Your task to perform on an android device: What's on the menu at Burger King? Image 0: 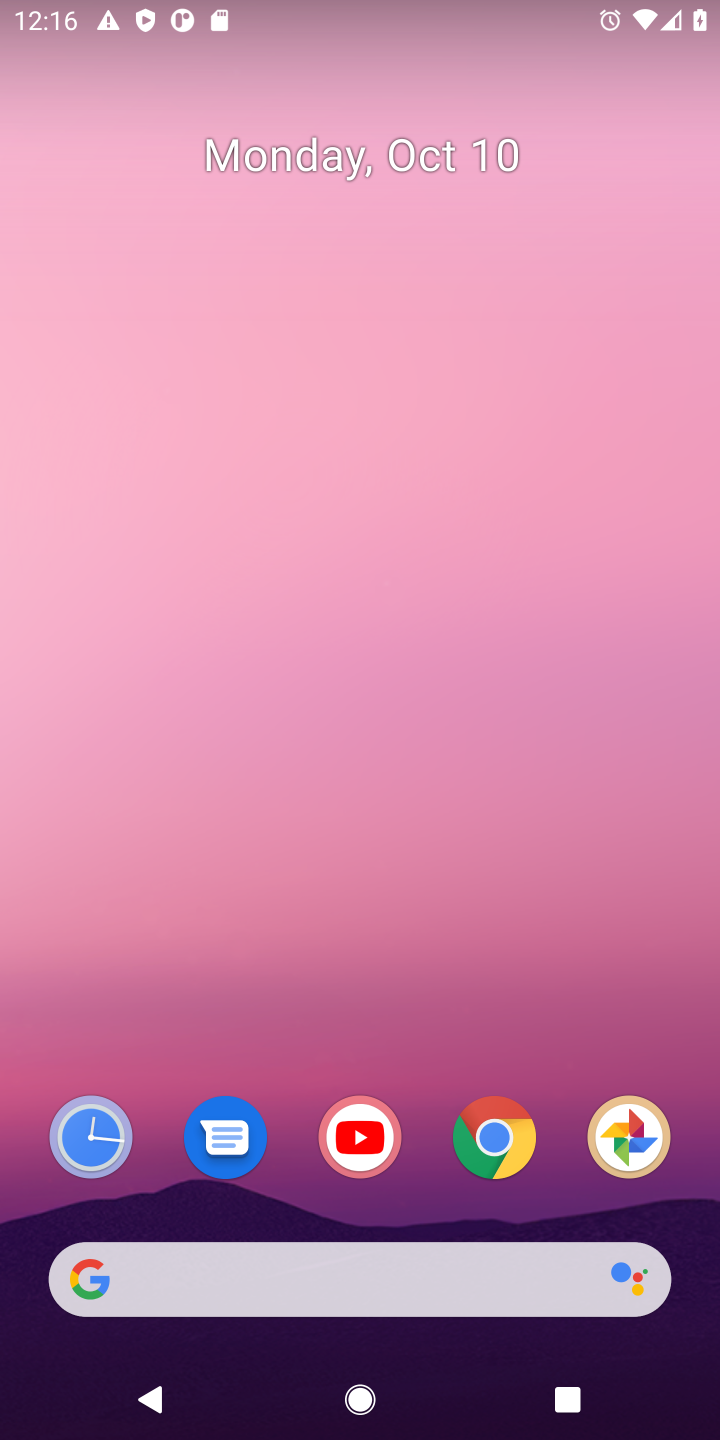
Step 0: drag from (418, 979) to (498, 39)
Your task to perform on an android device: What's on the menu at Burger King? Image 1: 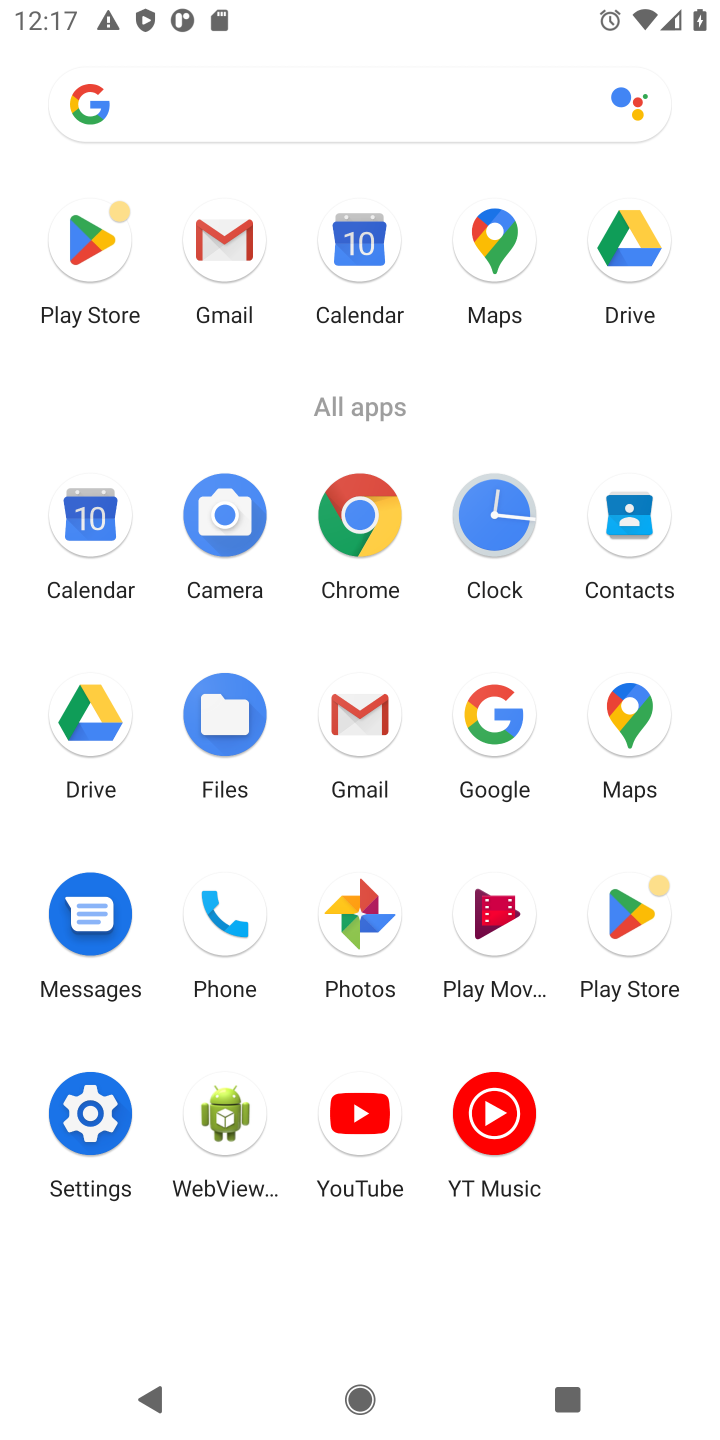
Step 1: click (368, 516)
Your task to perform on an android device: What's on the menu at Burger King? Image 2: 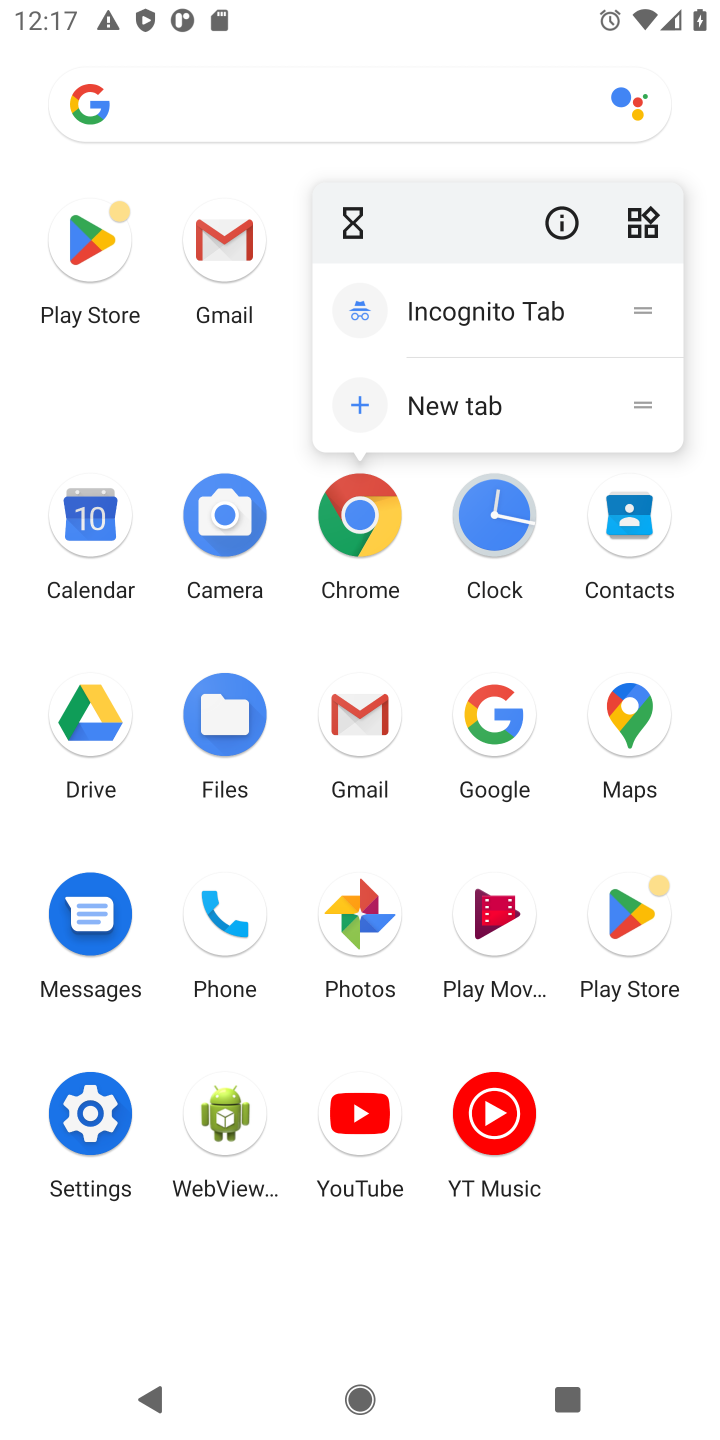
Step 2: click (355, 514)
Your task to perform on an android device: What's on the menu at Burger King? Image 3: 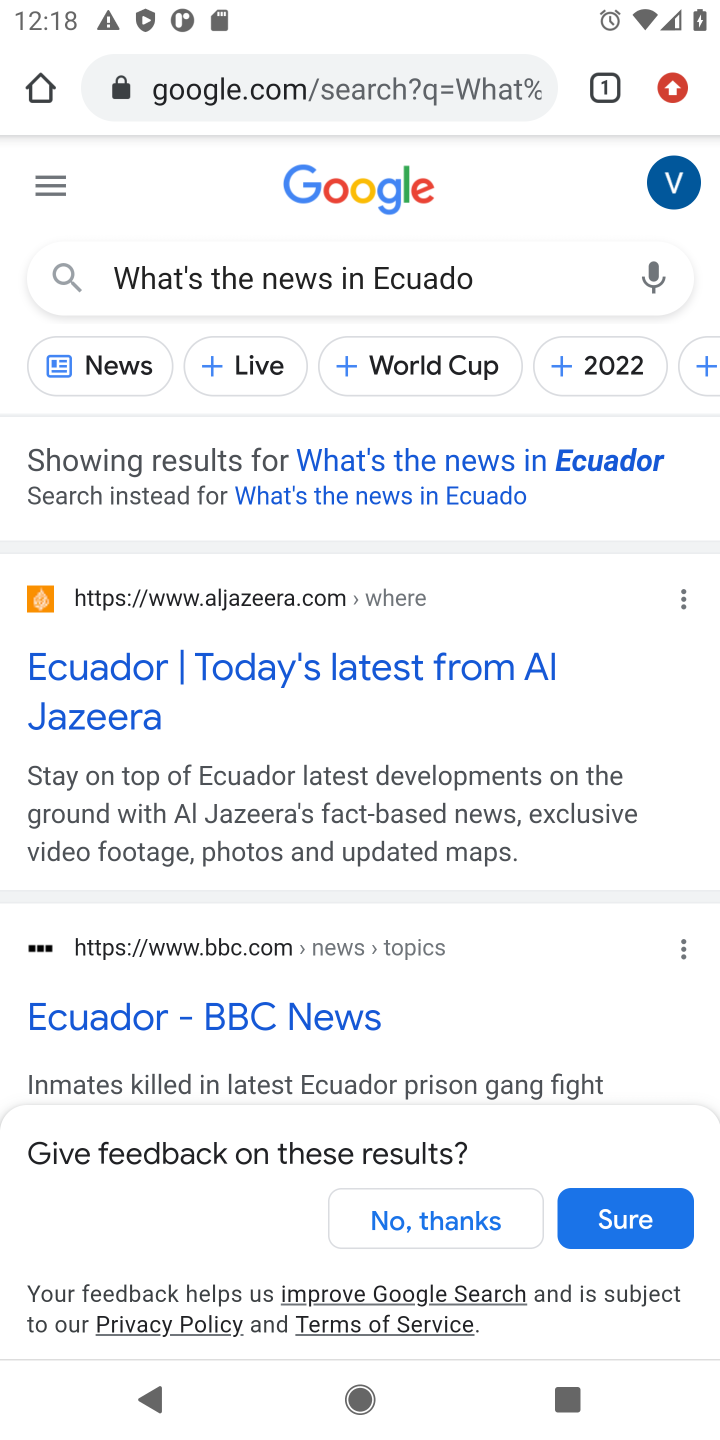
Step 3: click (242, 79)
Your task to perform on an android device: What's on the menu at Burger King? Image 4: 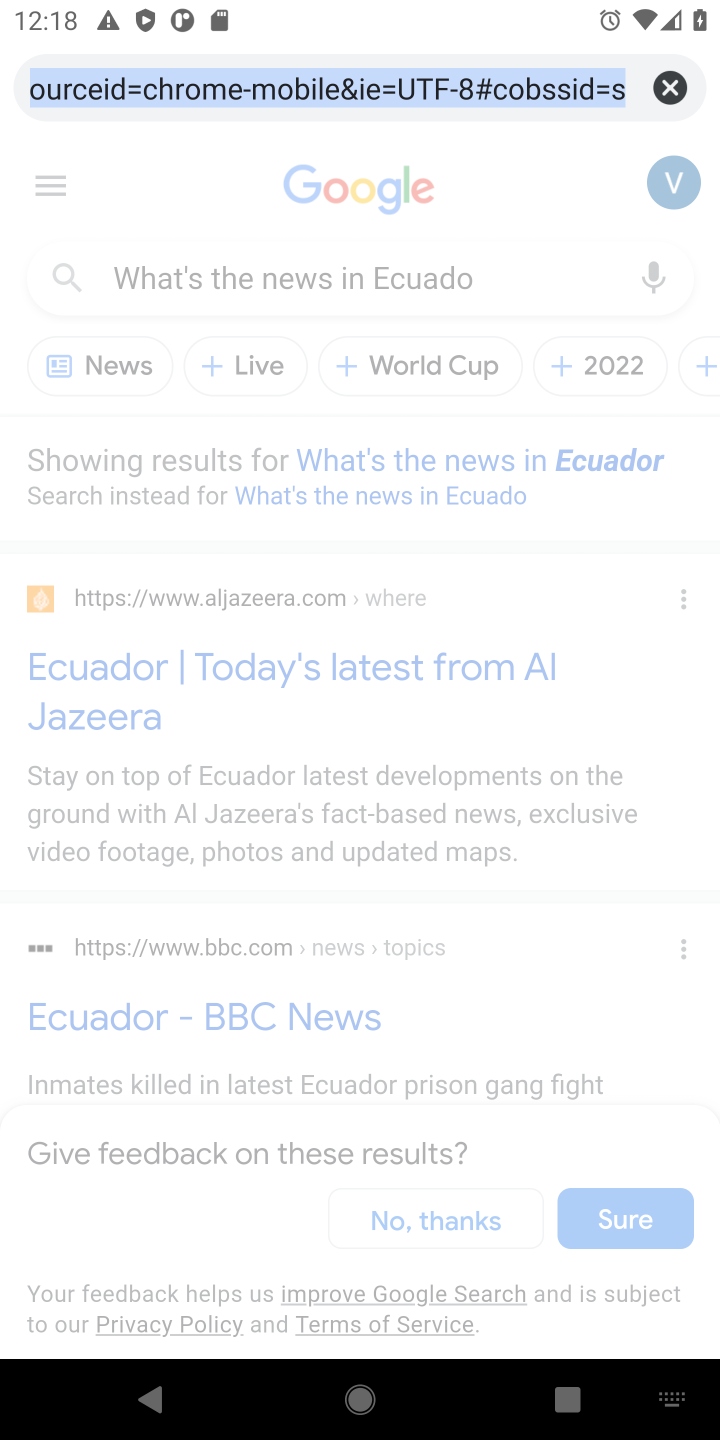
Step 4: click (662, 96)
Your task to perform on an android device: What's on the menu at Burger King? Image 5: 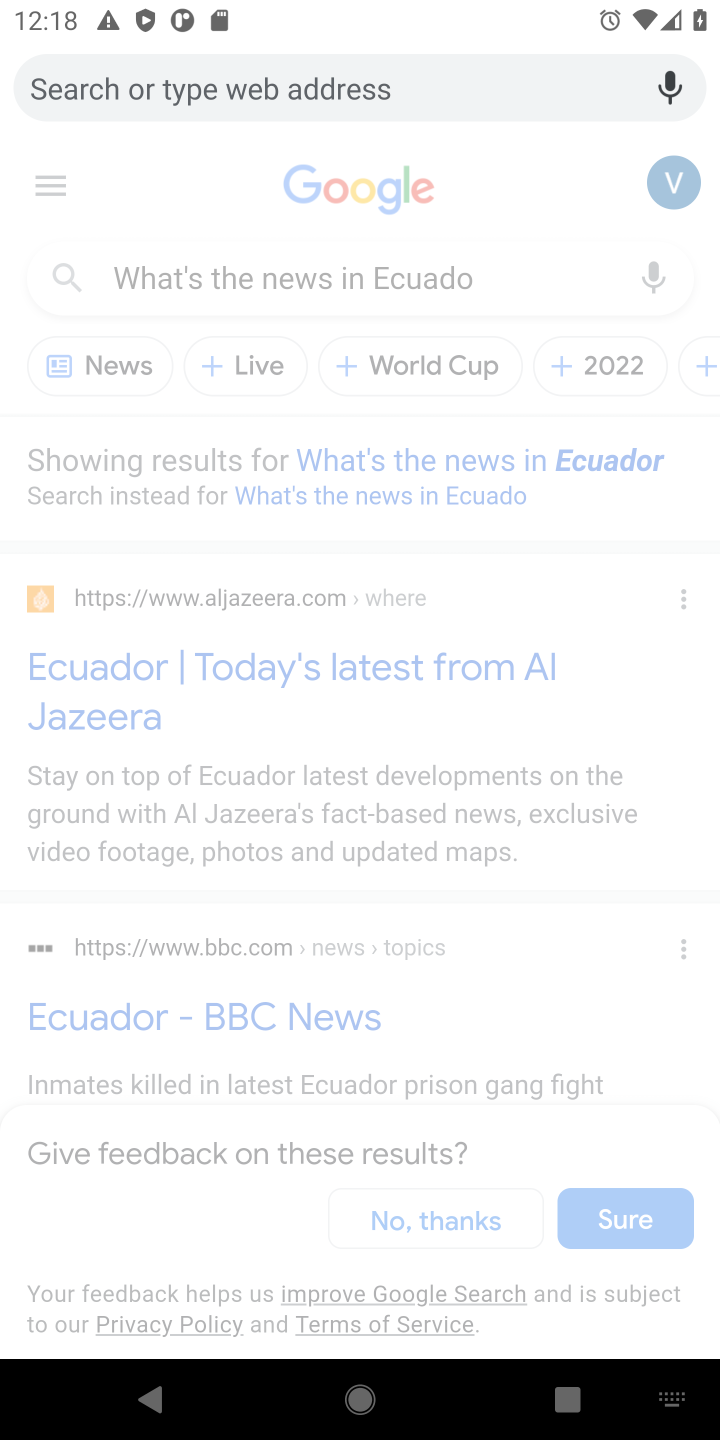
Step 5: type "What's on the menu at Burger King?"
Your task to perform on an android device: What's on the menu at Burger King? Image 6: 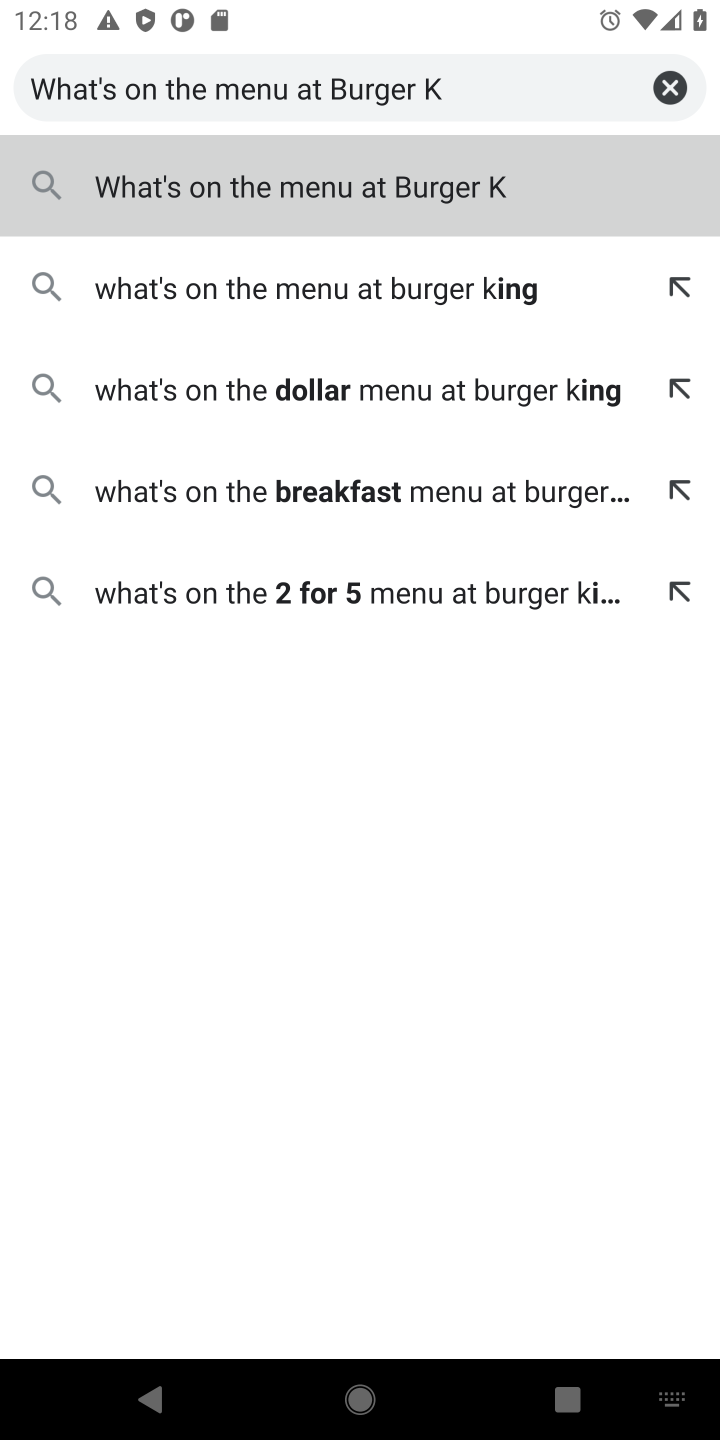
Step 6: click (476, 192)
Your task to perform on an android device: What's on the menu at Burger King? Image 7: 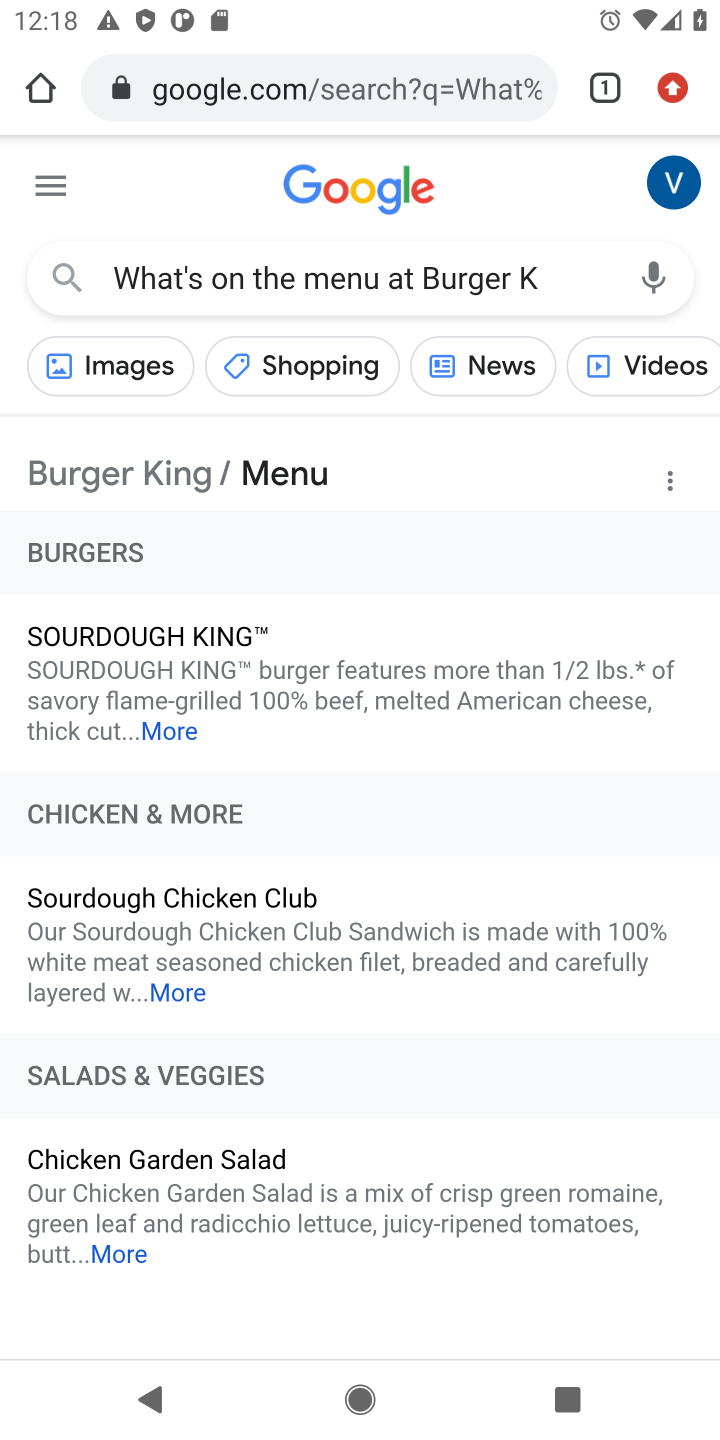
Step 7: task complete